Your task to perform on an android device: turn off translation in the chrome app Image 0: 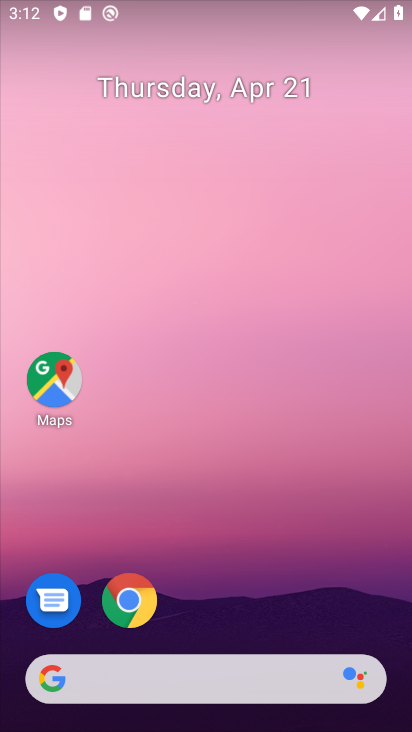
Step 0: click (135, 602)
Your task to perform on an android device: turn off translation in the chrome app Image 1: 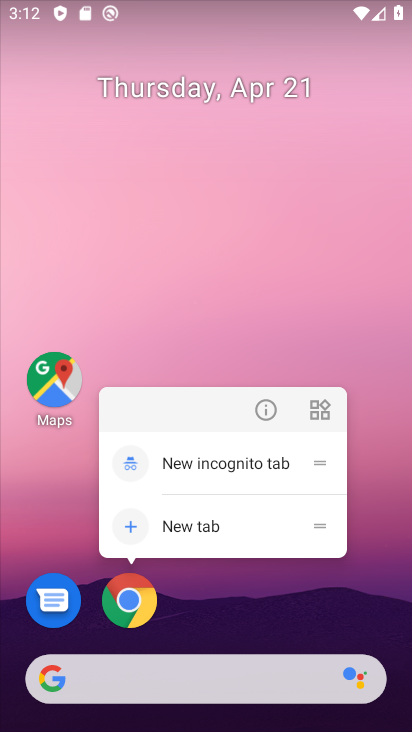
Step 1: click (137, 599)
Your task to perform on an android device: turn off translation in the chrome app Image 2: 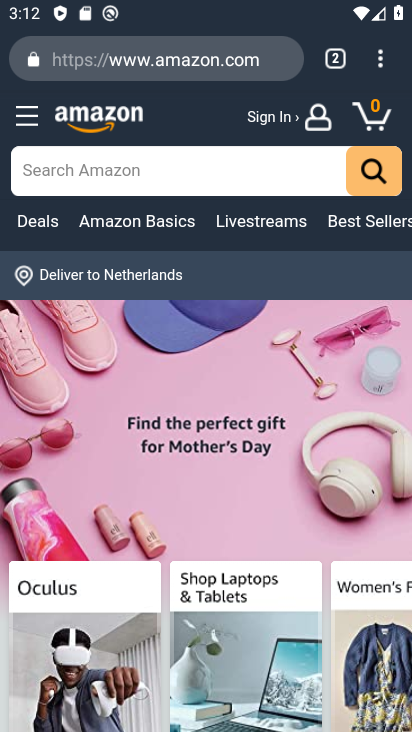
Step 2: click (384, 64)
Your task to perform on an android device: turn off translation in the chrome app Image 3: 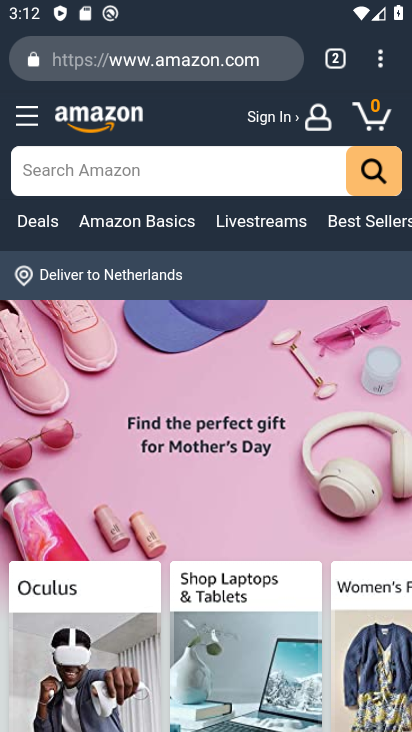
Step 3: click (384, 64)
Your task to perform on an android device: turn off translation in the chrome app Image 4: 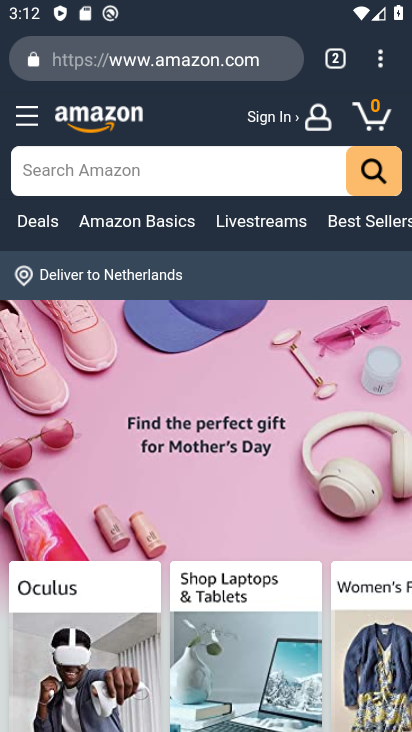
Step 4: click (384, 64)
Your task to perform on an android device: turn off translation in the chrome app Image 5: 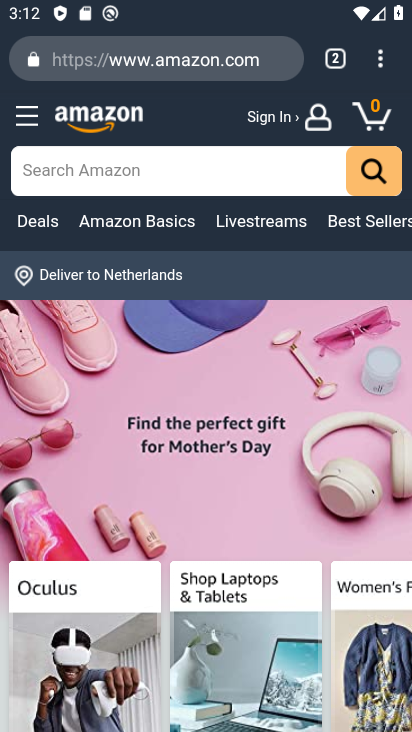
Step 5: click (380, 64)
Your task to perform on an android device: turn off translation in the chrome app Image 6: 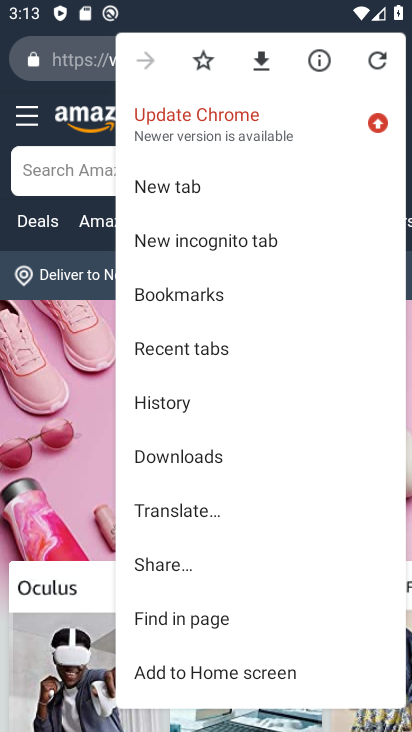
Step 6: drag from (264, 633) to (266, 406)
Your task to perform on an android device: turn off translation in the chrome app Image 7: 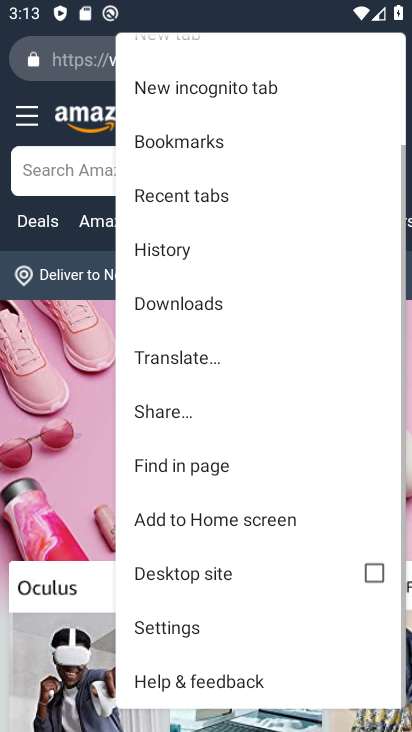
Step 7: click (301, 623)
Your task to perform on an android device: turn off translation in the chrome app Image 8: 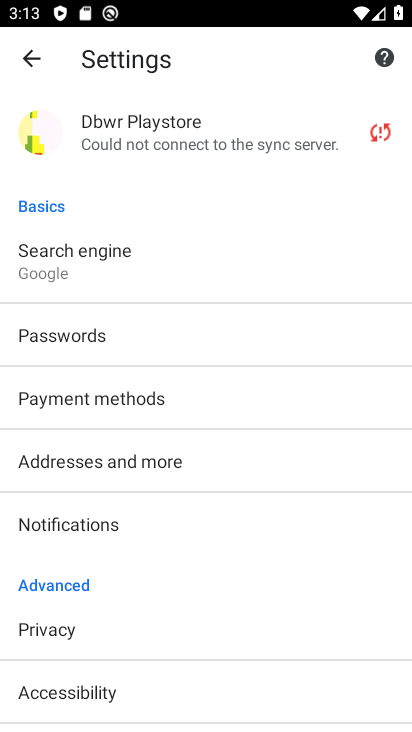
Step 8: drag from (184, 593) to (214, 396)
Your task to perform on an android device: turn off translation in the chrome app Image 9: 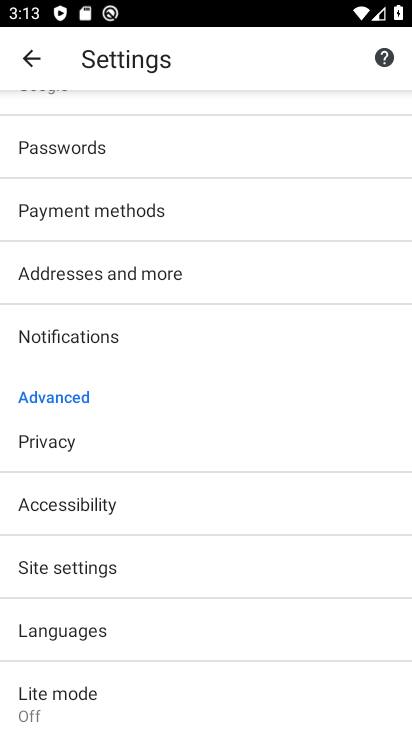
Step 9: click (194, 617)
Your task to perform on an android device: turn off translation in the chrome app Image 10: 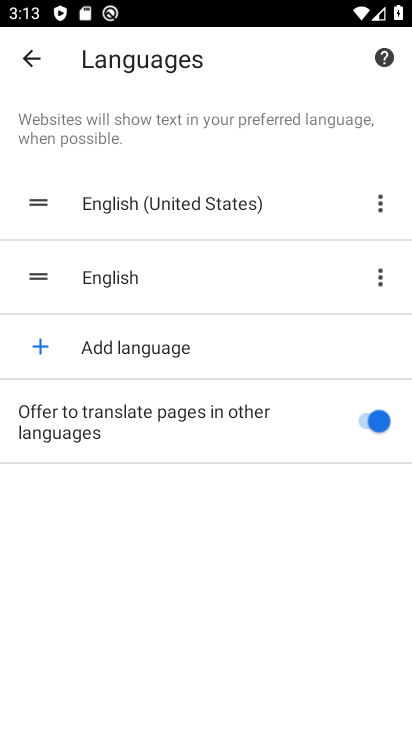
Step 10: click (357, 420)
Your task to perform on an android device: turn off translation in the chrome app Image 11: 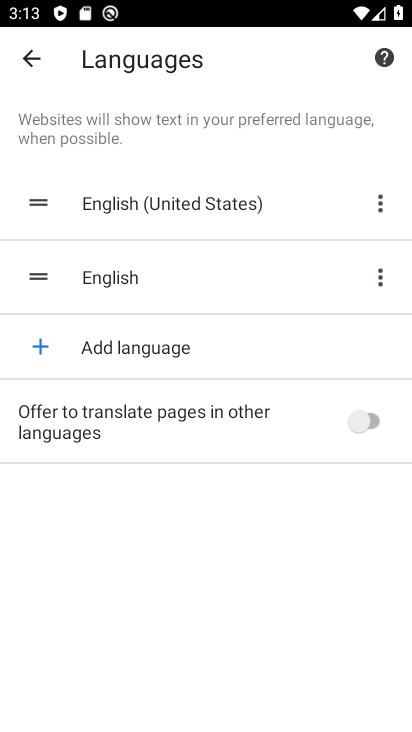
Step 11: task complete